Your task to perform on an android device: Empty the shopping cart on bestbuy.com. Search for macbook pro on bestbuy.com, select the first entry, add it to the cart, then select checkout. Image 0: 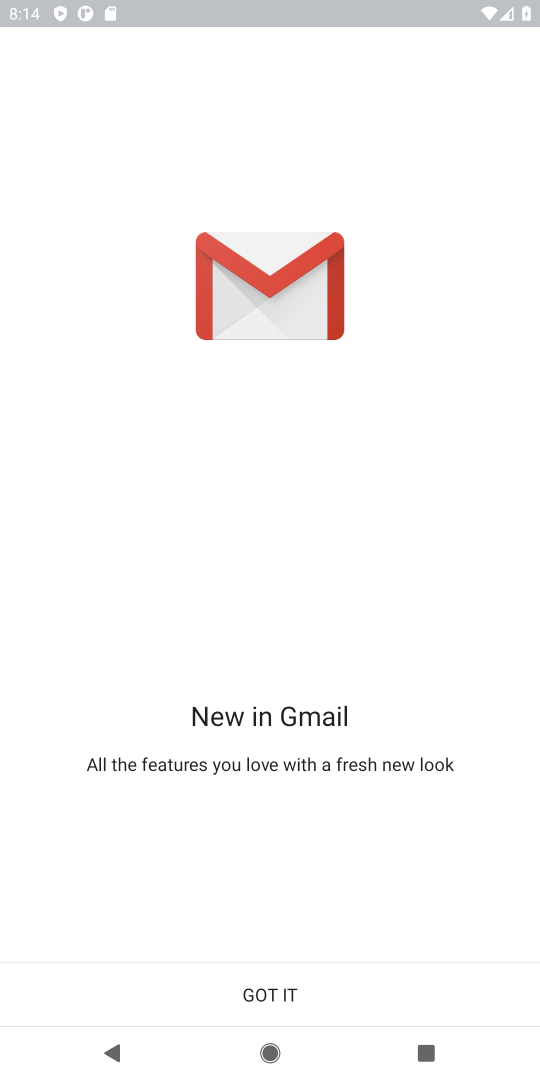
Step 0: press home button
Your task to perform on an android device: Empty the shopping cart on bestbuy.com. Search for macbook pro on bestbuy.com, select the first entry, add it to the cart, then select checkout. Image 1: 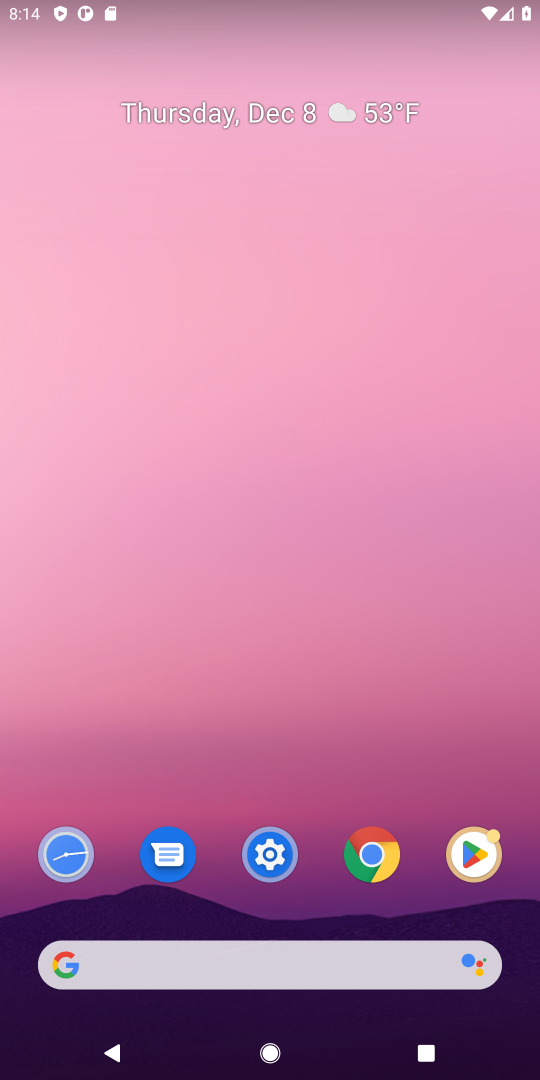
Step 1: click (96, 959)
Your task to perform on an android device: Empty the shopping cart on bestbuy.com. Search for macbook pro on bestbuy.com, select the first entry, add it to the cart, then select checkout. Image 2: 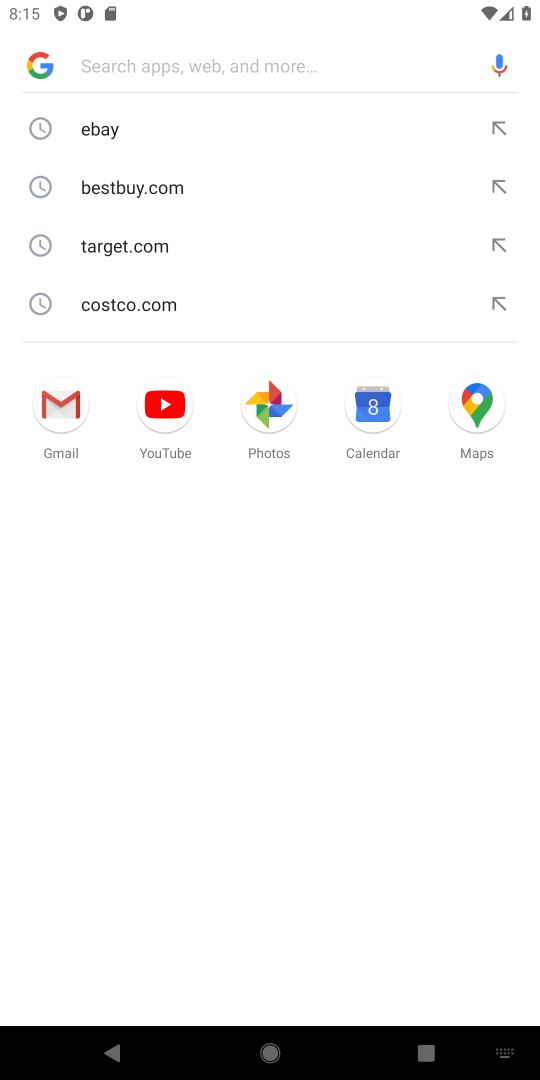
Step 2: type "bestbuy.com"
Your task to perform on an android device: Empty the shopping cart on bestbuy.com. Search for macbook pro on bestbuy.com, select the first entry, add it to the cart, then select checkout. Image 3: 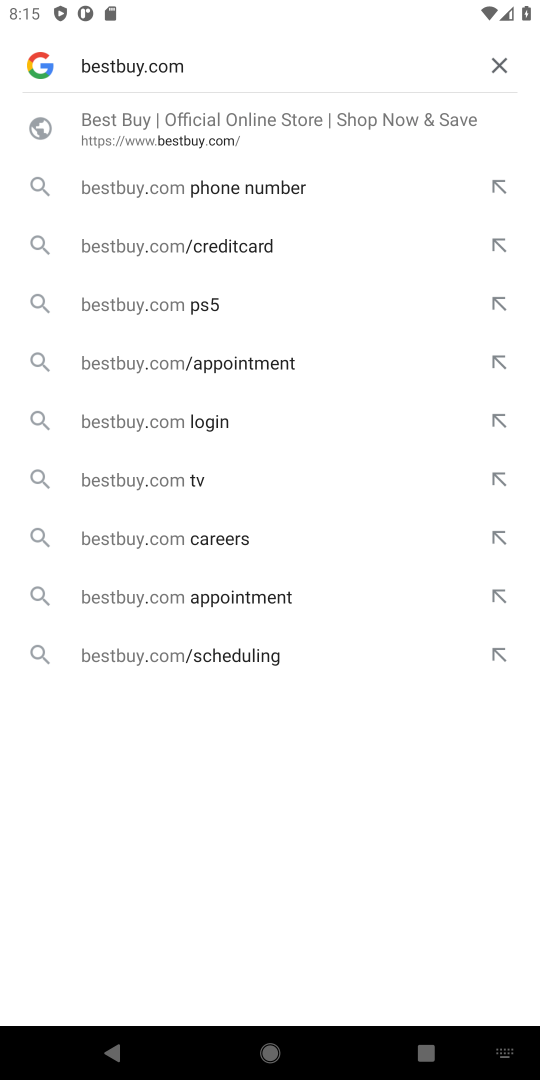
Step 3: press enter
Your task to perform on an android device: Empty the shopping cart on bestbuy.com. Search for macbook pro on bestbuy.com, select the first entry, add it to the cart, then select checkout. Image 4: 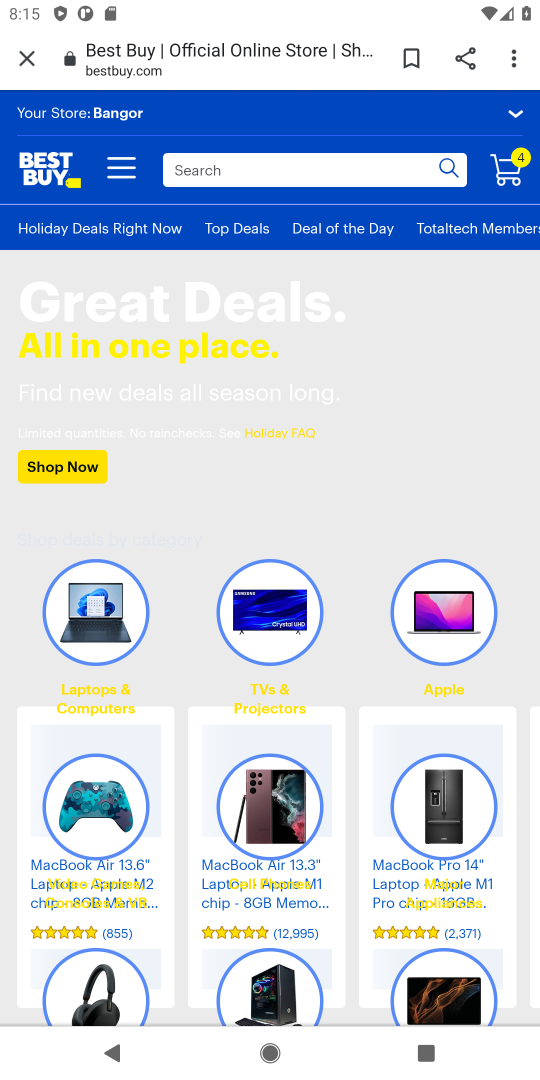
Step 4: click (505, 173)
Your task to perform on an android device: Empty the shopping cart on bestbuy.com. Search for macbook pro on bestbuy.com, select the first entry, add it to the cart, then select checkout. Image 5: 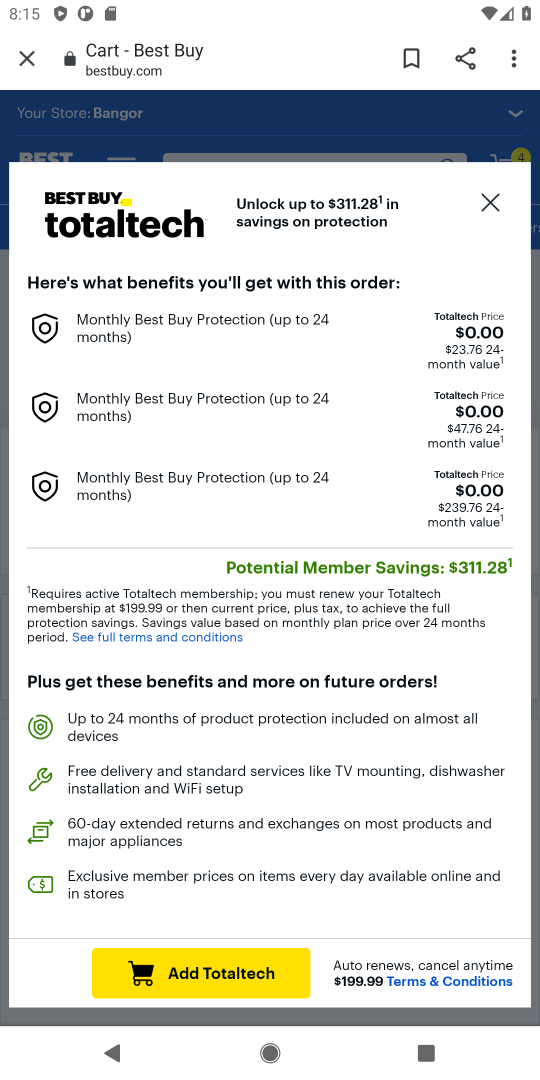
Step 5: click (495, 200)
Your task to perform on an android device: Empty the shopping cart on bestbuy.com. Search for macbook pro on bestbuy.com, select the first entry, add it to the cart, then select checkout. Image 6: 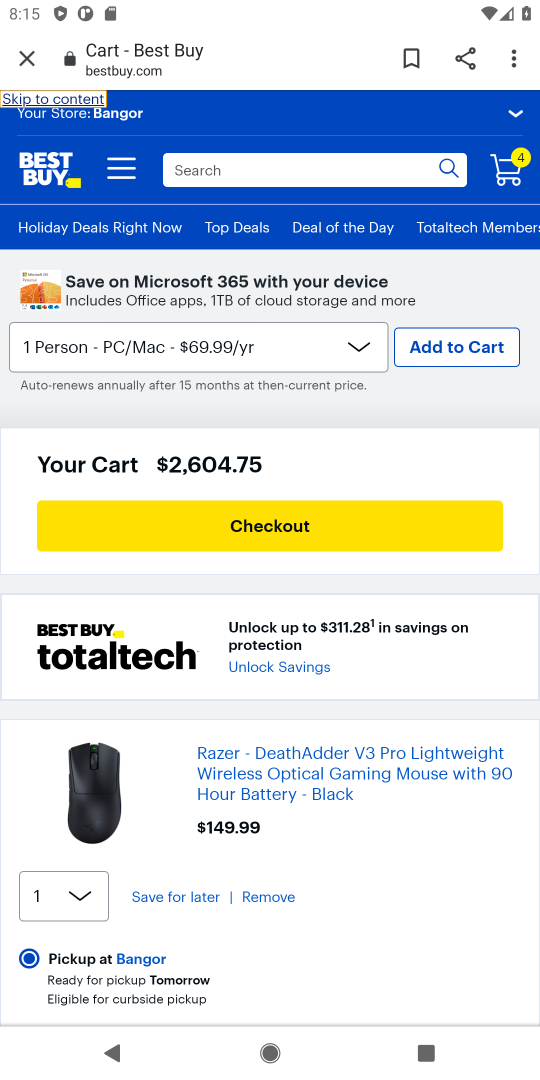
Step 6: click (275, 892)
Your task to perform on an android device: Empty the shopping cart on bestbuy.com. Search for macbook pro on bestbuy.com, select the first entry, add it to the cart, then select checkout. Image 7: 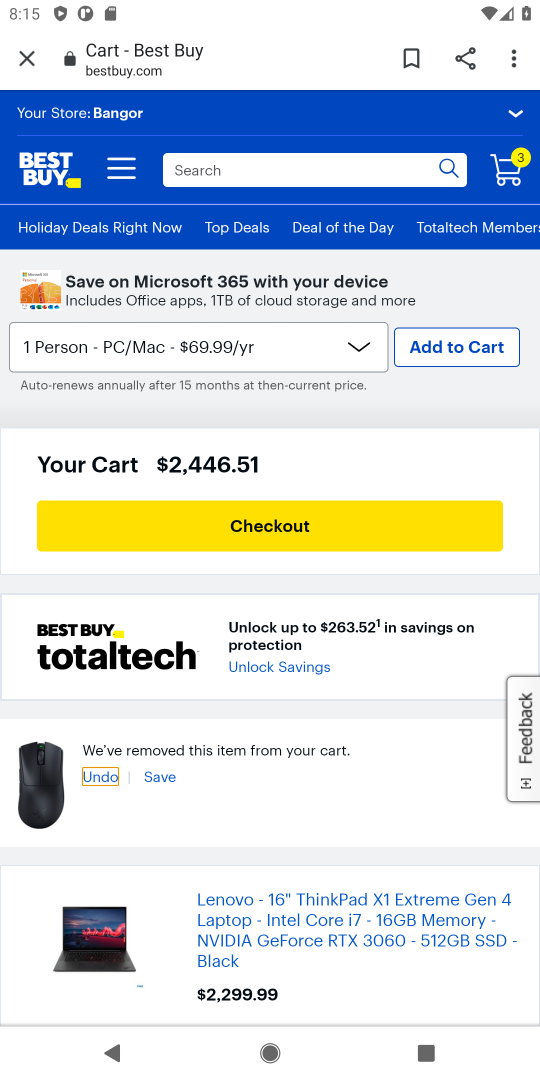
Step 7: drag from (304, 955) to (307, 568)
Your task to perform on an android device: Empty the shopping cart on bestbuy.com. Search for macbook pro on bestbuy.com, select the first entry, add it to the cart, then select checkout. Image 8: 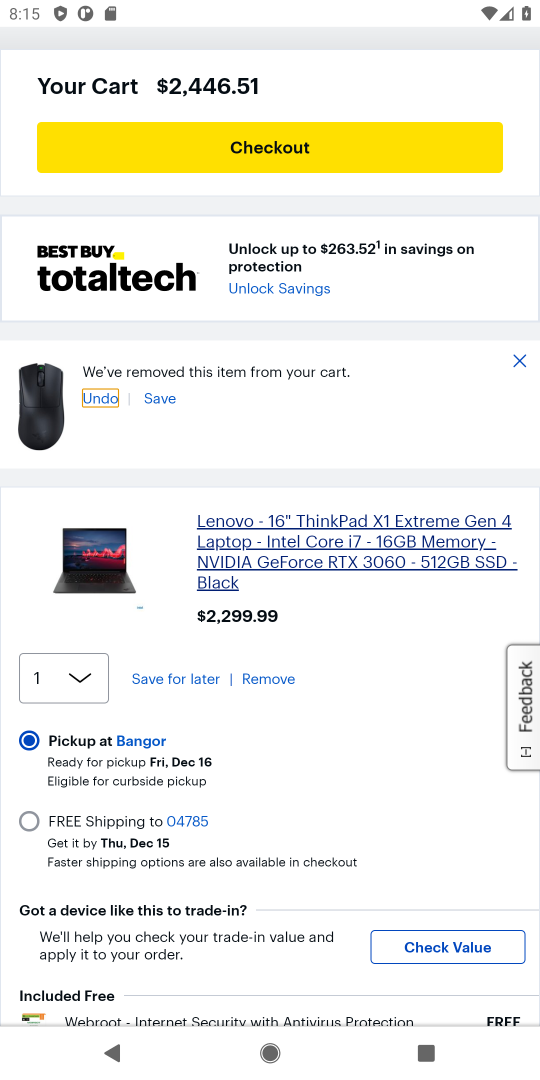
Step 8: click (263, 679)
Your task to perform on an android device: Empty the shopping cart on bestbuy.com. Search for macbook pro on bestbuy.com, select the first entry, add it to the cart, then select checkout. Image 9: 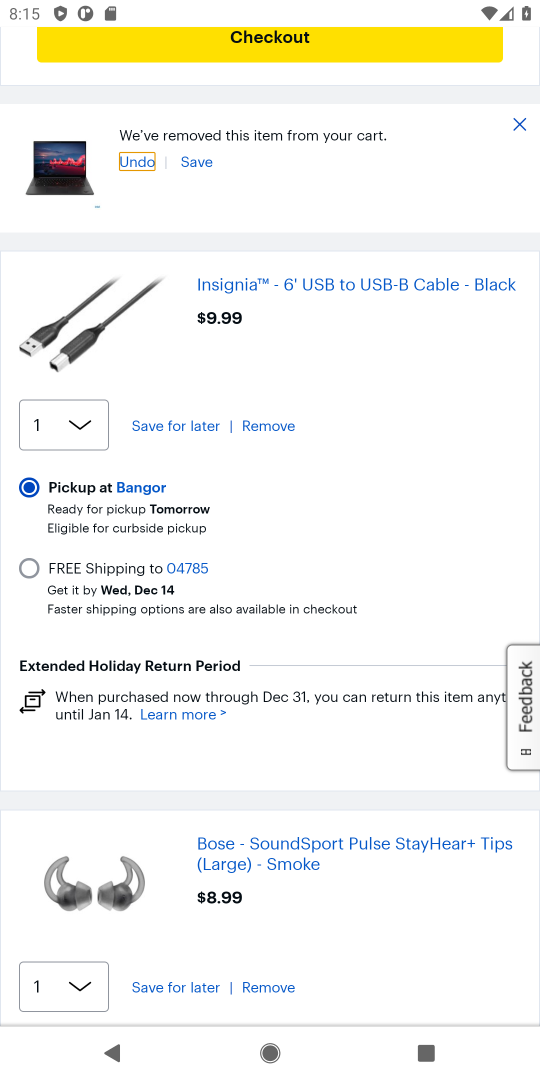
Step 9: click (283, 427)
Your task to perform on an android device: Empty the shopping cart on bestbuy.com. Search for macbook pro on bestbuy.com, select the first entry, add it to the cart, then select checkout. Image 10: 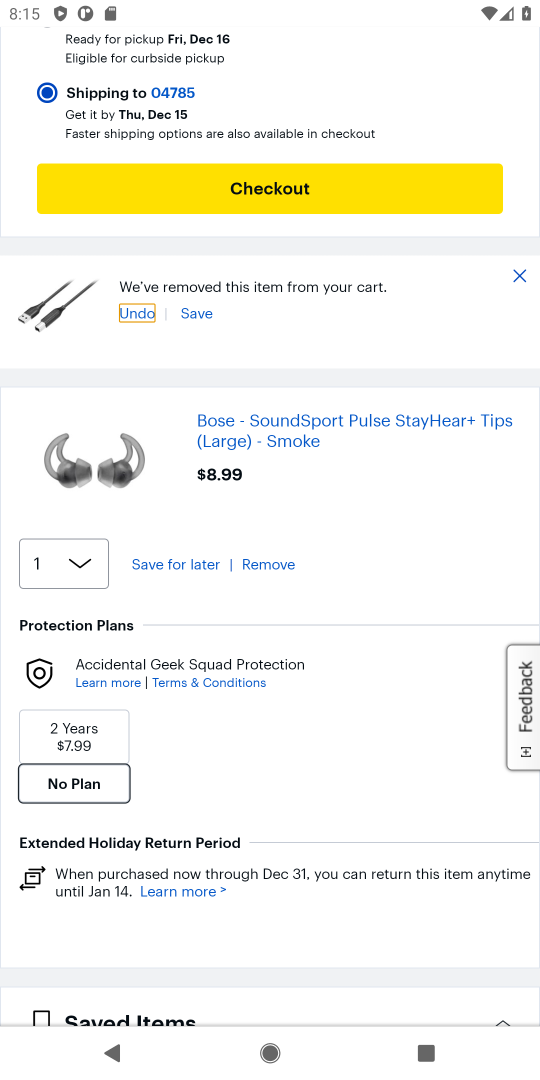
Step 10: click (268, 559)
Your task to perform on an android device: Empty the shopping cart on bestbuy.com. Search for macbook pro on bestbuy.com, select the first entry, add it to the cart, then select checkout. Image 11: 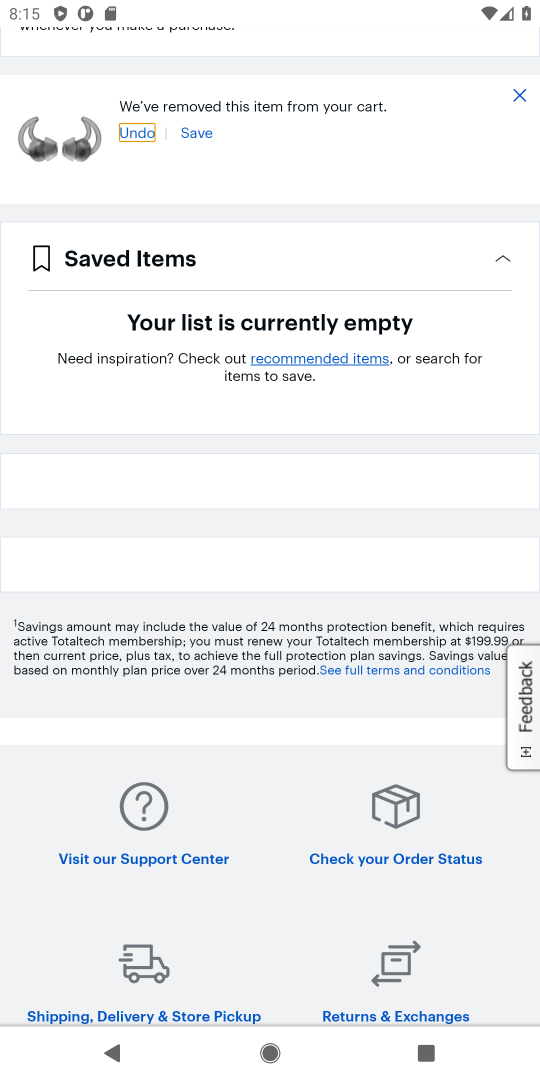
Step 11: click (518, 90)
Your task to perform on an android device: Empty the shopping cart on bestbuy.com. Search for macbook pro on bestbuy.com, select the first entry, add it to the cart, then select checkout. Image 12: 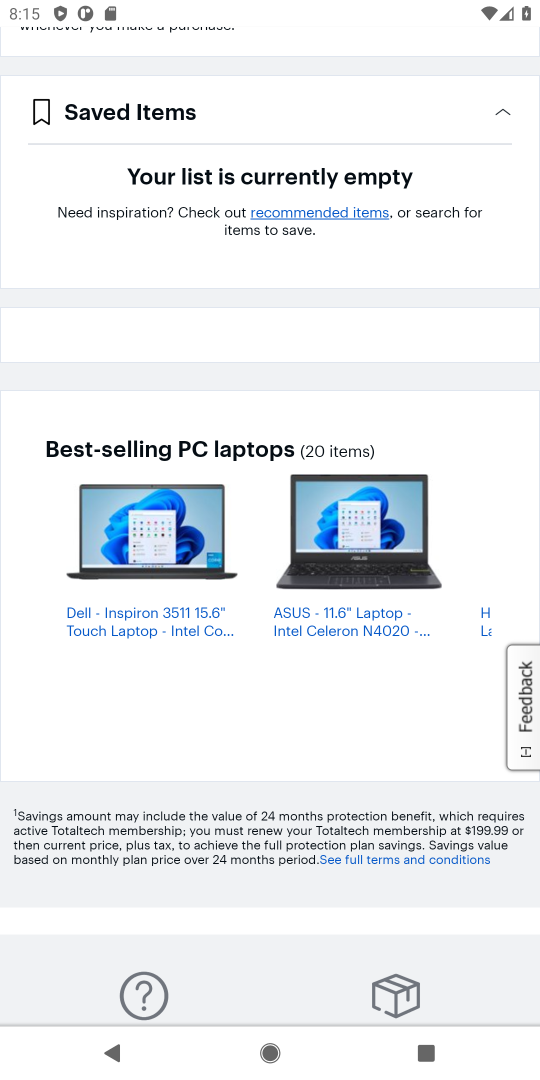
Step 12: press back button
Your task to perform on an android device: Empty the shopping cart on bestbuy.com. Search for macbook pro on bestbuy.com, select the first entry, add it to the cart, then select checkout. Image 13: 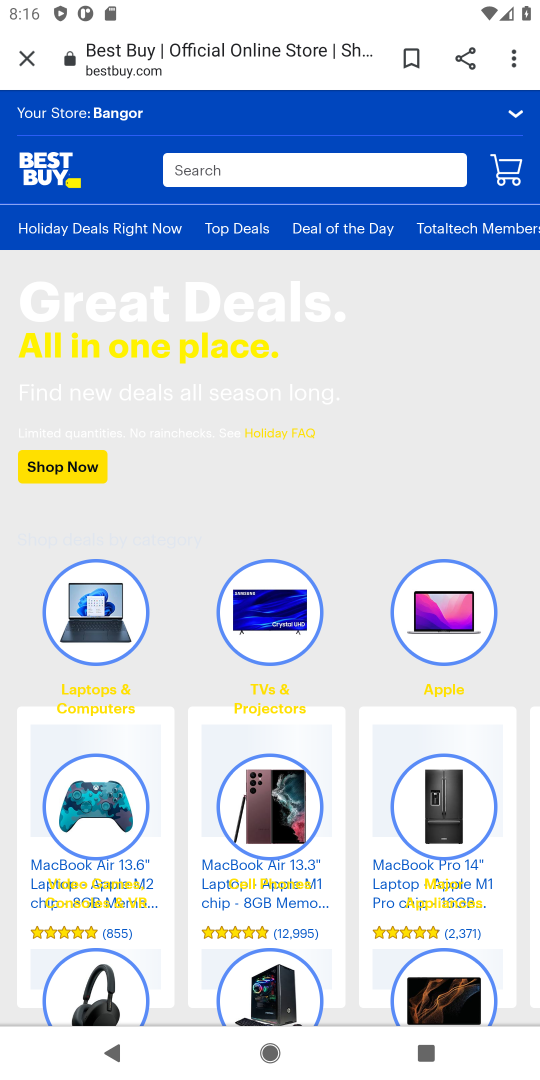
Step 13: click (209, 167)
Your task to perform on an android device: Empty the shopping cart on bestbuy.com. Search for macbook pro on bestbuy.com, select the first entry, add it to the cart, then select checkout. Image 14: 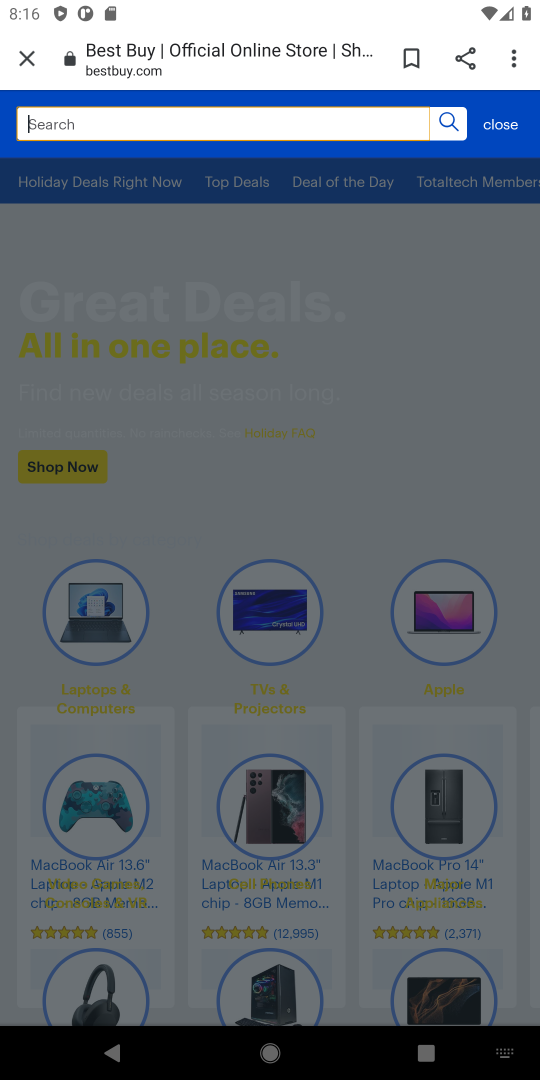
Step 14: type "macbook pro"
Your task to perform on an android device: Empty the shopping cart on bestbuy.com. Search for macbook pro on bestbuy.com, select the first entry, add it to the cart, then select checkout. Image 15: 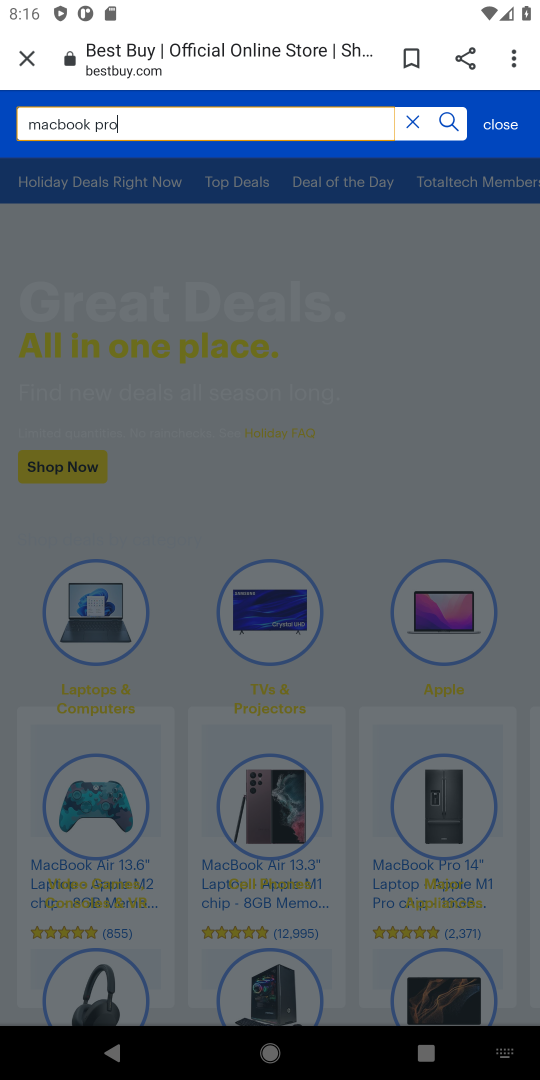
Step 15: press enter
Your task to perform on an android device: Empty the shopping cart on bestbuy.com. Search for macbook pro on bestbuy.com, select the first entry, add it to the cart, then select checkout. Image 16: 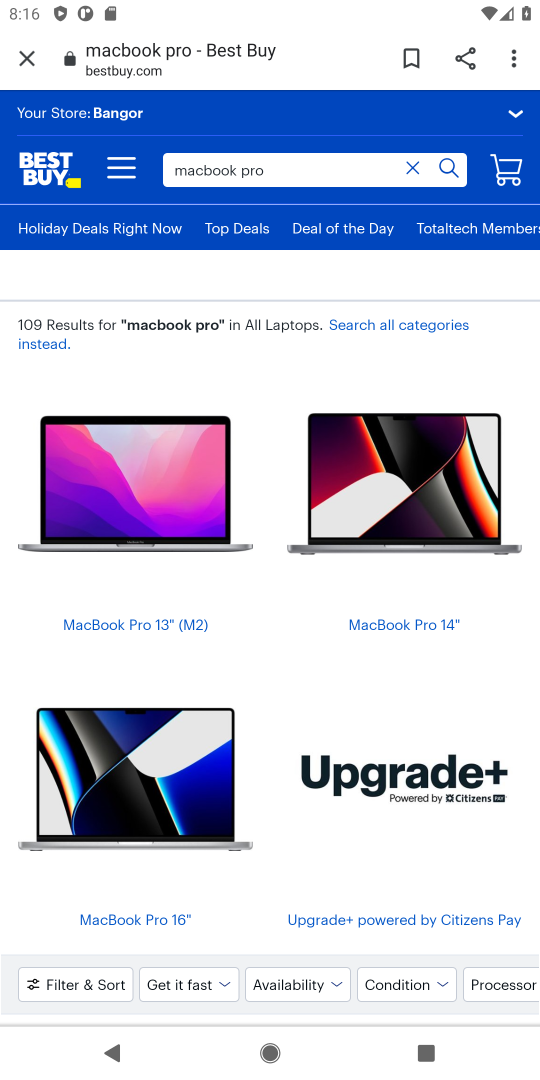
Step 16: drag from (369, 868) to (354, 349)
Your task to perform on an android device: Empty the shopping cart on bestbuy.com. Search for macbook pro on bestbuy.com, select the first entry, add it to the cart, then select checkout. Image 17: 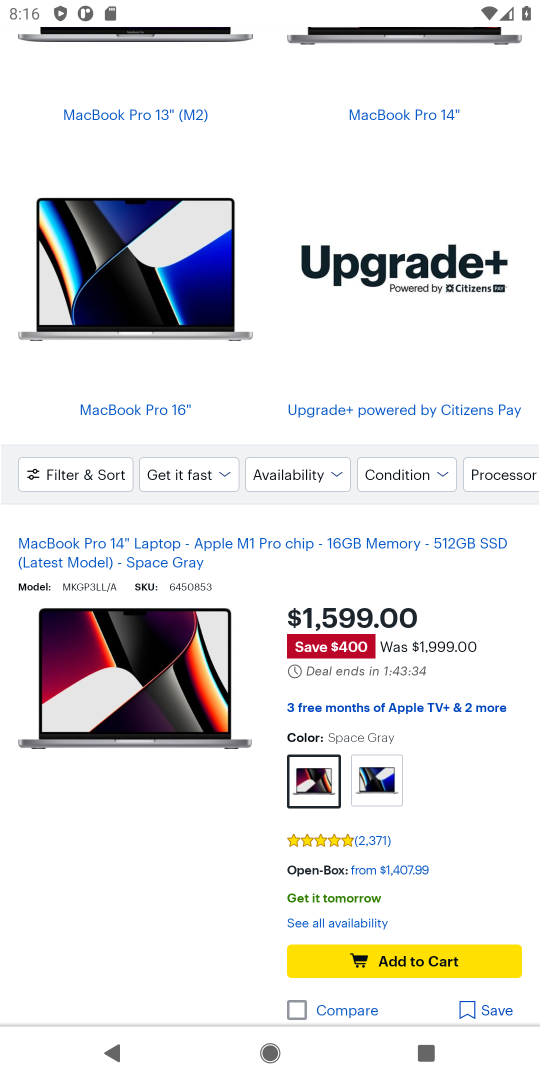
Step 17: drag from (206, 849) to (259, 519)
Your task to perform on an android device: Empty the shopping cart on bestbuy.com. Search for macbook pro on bestbuy.com, select the first entry, add it to the cart, then select checkout. Image 18: 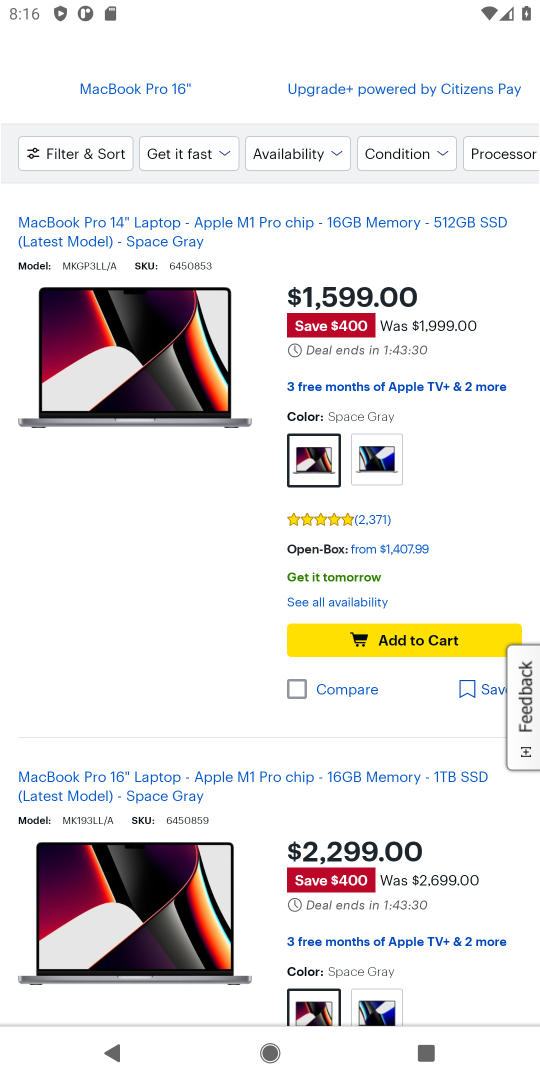
Step 18: click (411, 633)
Your task to perform on an android device: Empty the shopping cart on bestbuy.com. Search for macbook pro on bestbuy.com, select the first entry, add it to the cart, then select checkout. Image 19: 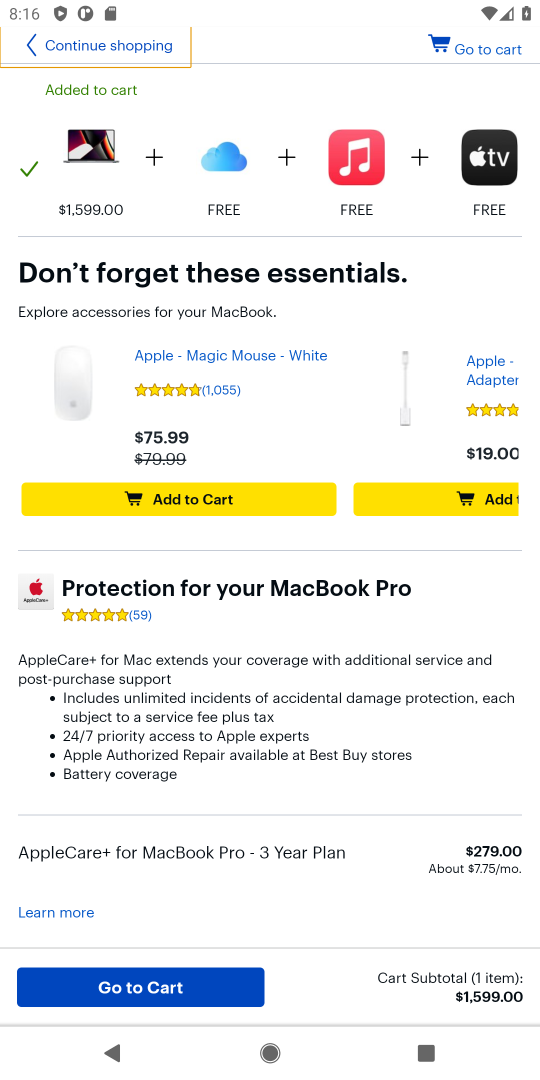
Step 19: task complete